Your task to perform on an android device: What's the weather? Image 0: 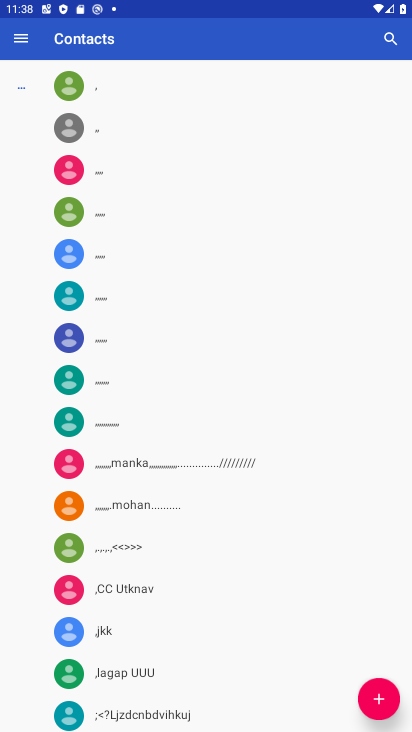
Step 0: press home button
Your task to perform on an android device: What's the weather? Image 1: 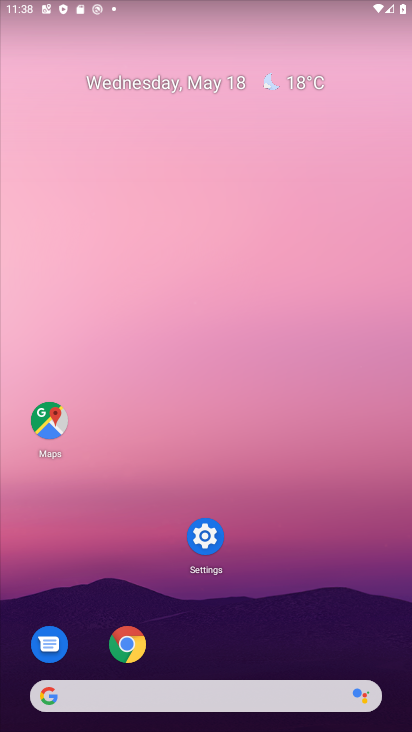
Step 1: click (311, 90)
Your task to perform on an android device: What's the weather? Image 2: 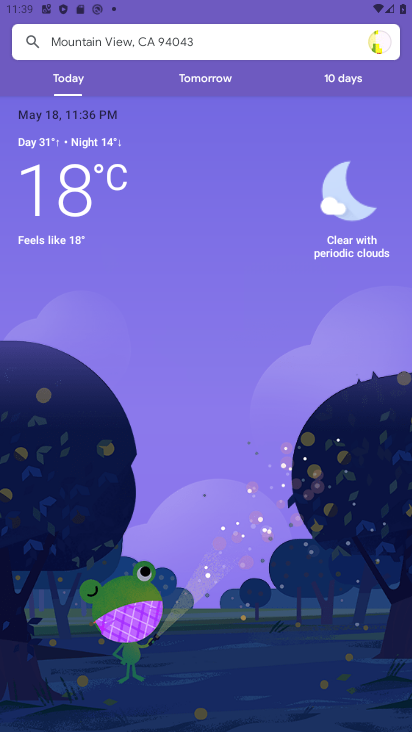
Step 2: task complete